Your task to perform on an android device: What's on my calendar today? Image 0: 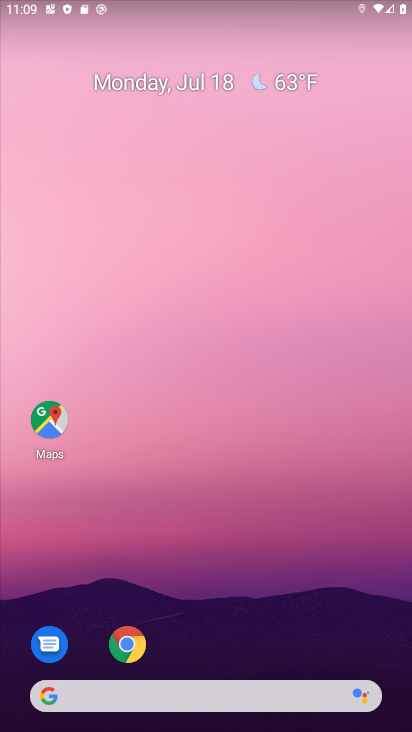
Step 0: drag from (231, 730) to (234, 193)
Your task to perform on an android device: What's on my calendar today? Image 1: 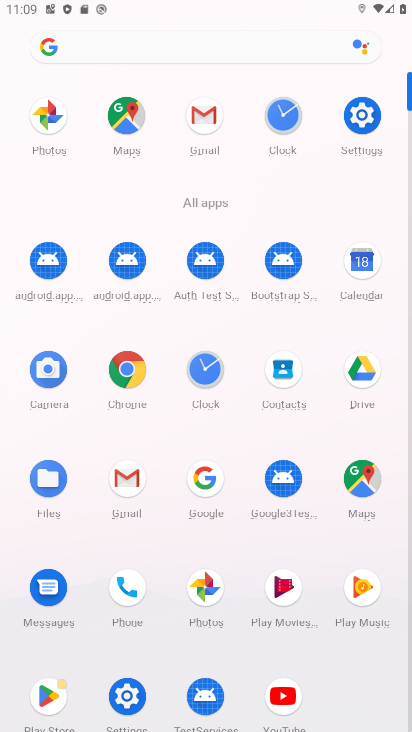
Step 1: click (357, 261)
Your task to perform on an android device: What's on my calendar today? Image 2: 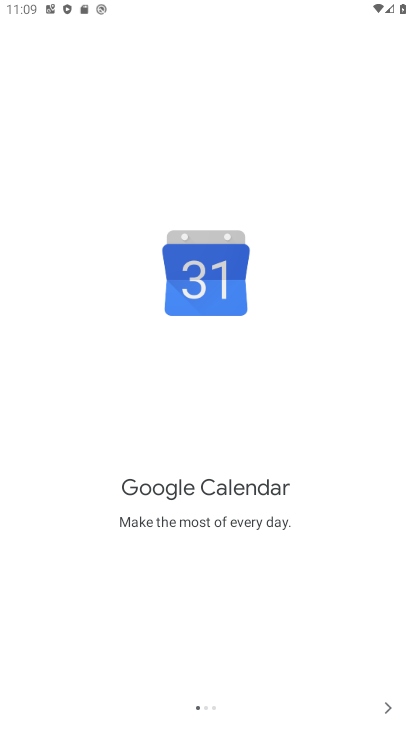
Step 2: click (394, 705)
Your task to perform on an android device: What's on my calendar today? Image 3: 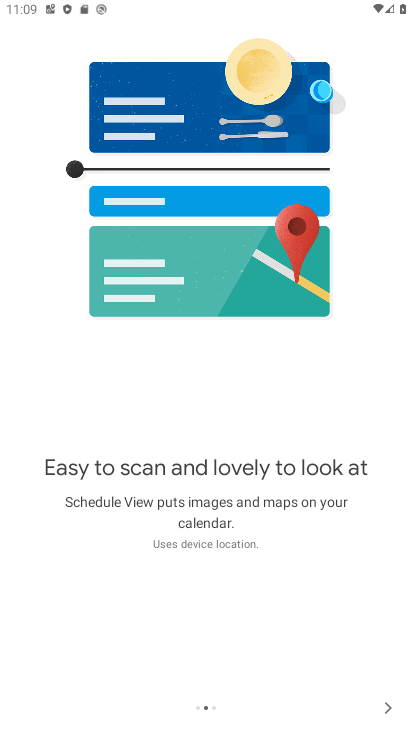
Step 3: click (378, 700)
Your task to perform on an android device: What's on my calendar today? Image 4: 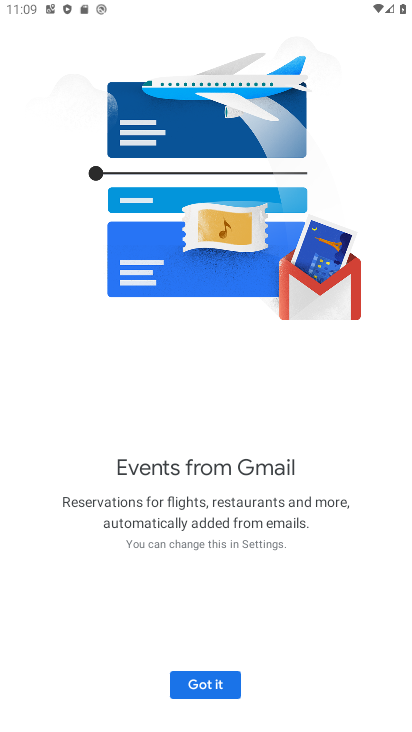
Step 4: click (210, 685)
Your task to perform on an android device: What's on my calendar today? Image 5: 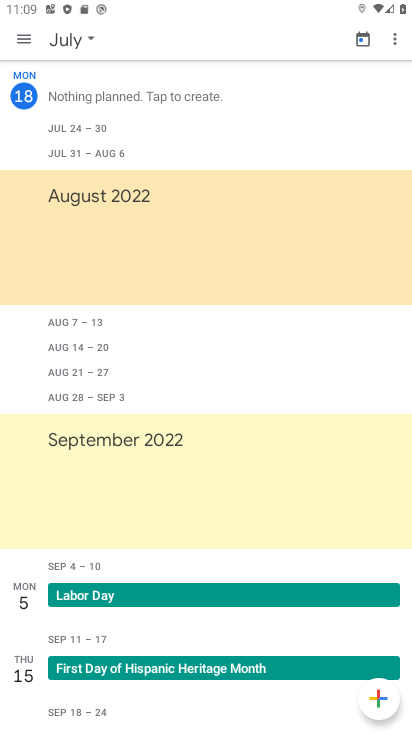
Step 5: click (25, 93)
Your task to perform on an android device: What's on my calendar today? Image 6: 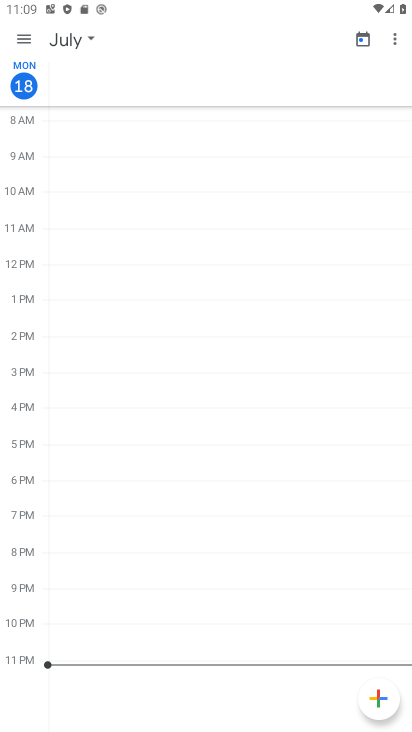
Step 6: task complete